Your task to perform on an android device: What is the news today? Image 0: 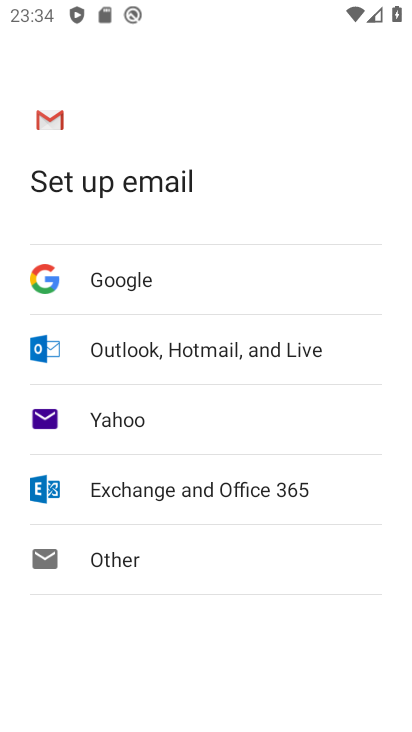
Step 0: press home button
Your task to perform on an android device: What is the news today? Image 1: 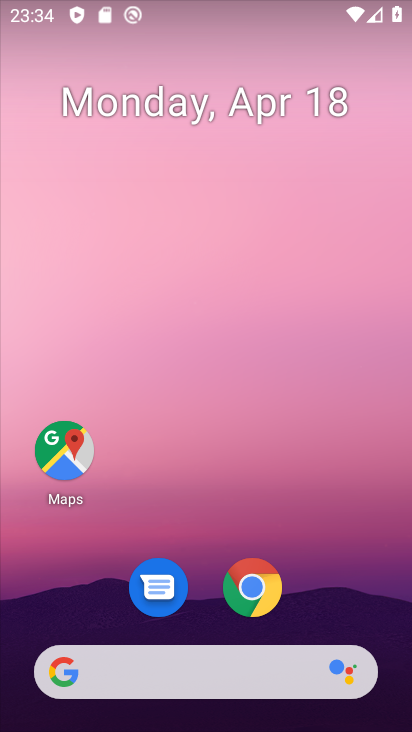
Step 1: drag from (386, 563) to (363, 161)
Your task to perform on an android device: What is the news today? Image 2: 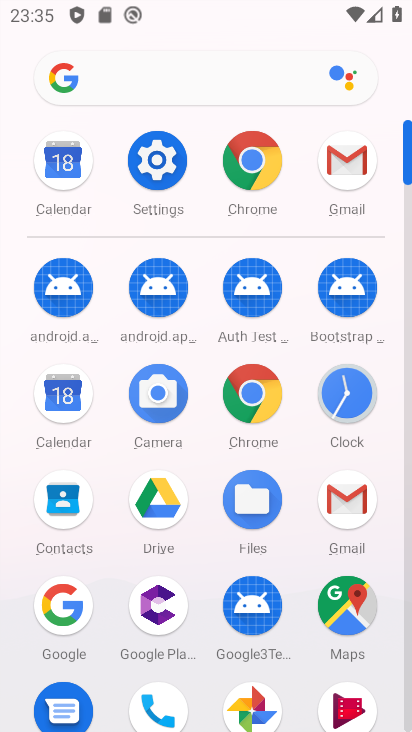
Step 2: click (233, 160)
Your task to perform on an android device: What is the news today? Image 3: 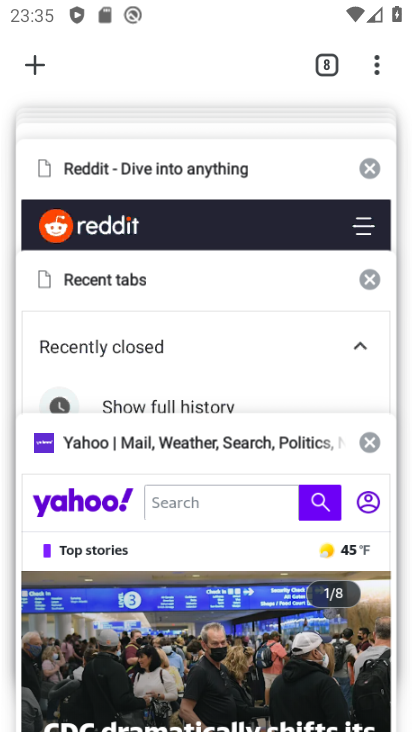
Step 3: click (37, 66)
Your task to perform on an android device: What is the news today? Image 4: 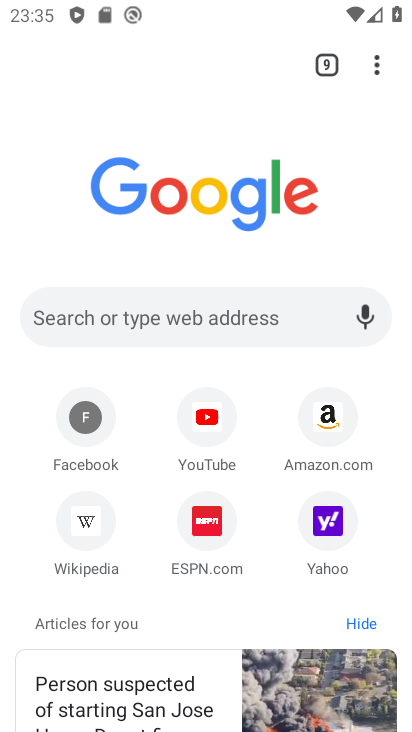
Step 4: click (199, 302)
Your task to perform on an android device: What is the news today? Image 5: 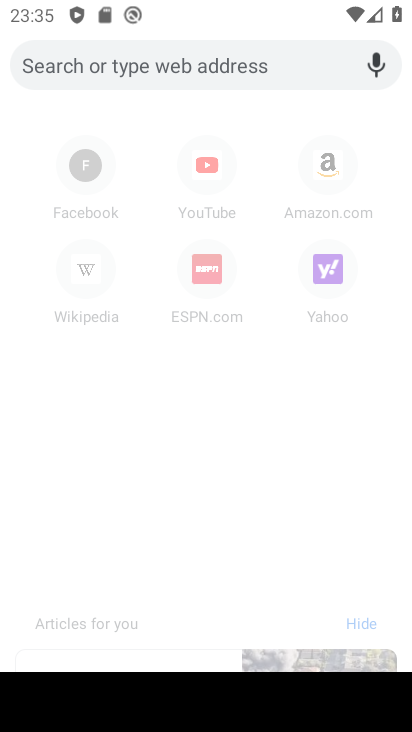
Step 5: type "what's is the today"
Your task to perform on an android device: What is the news today? Image 6: 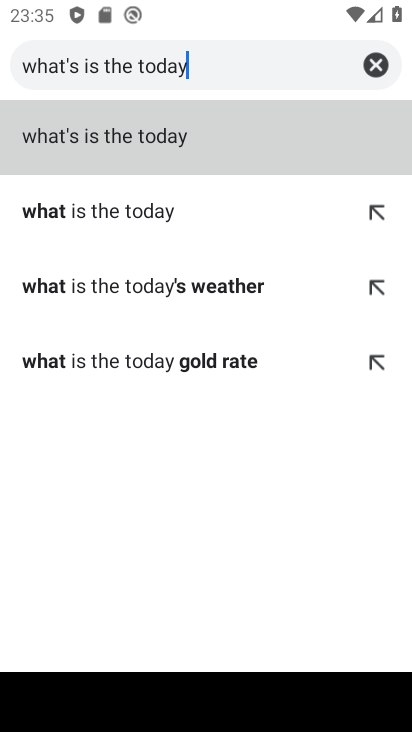
Step 6: click (155, 138)
Your task to perform on an android device: What is the news today? Image 7: 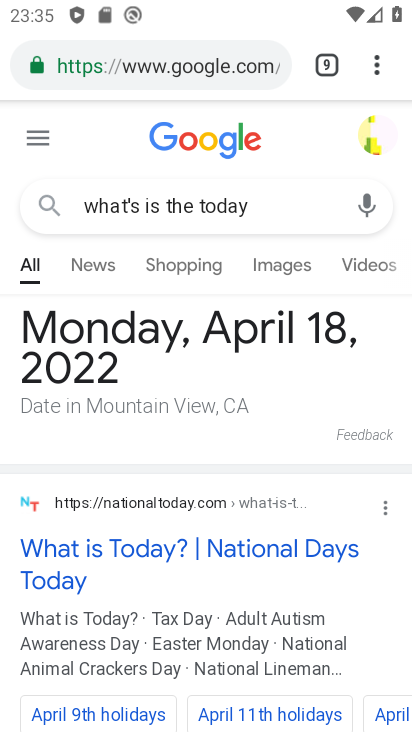
Step 7: task complete